Your task to perform on an android device: Go to display settings Image 0: 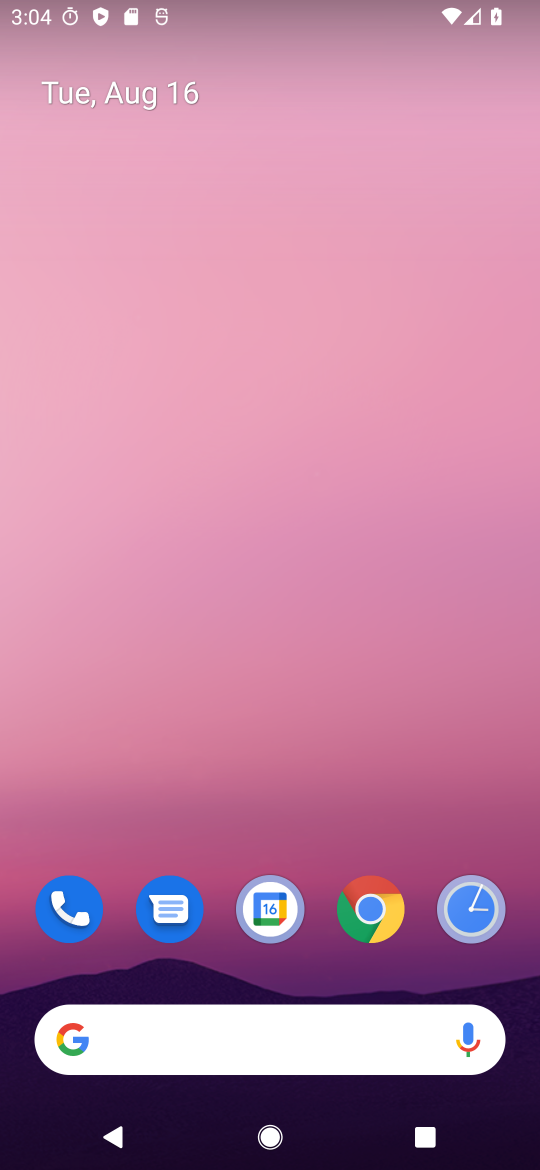
Step 0: drag from (245, 913) to (373, 110)
Your task to perform on an android device: Go to display settings Image 1: 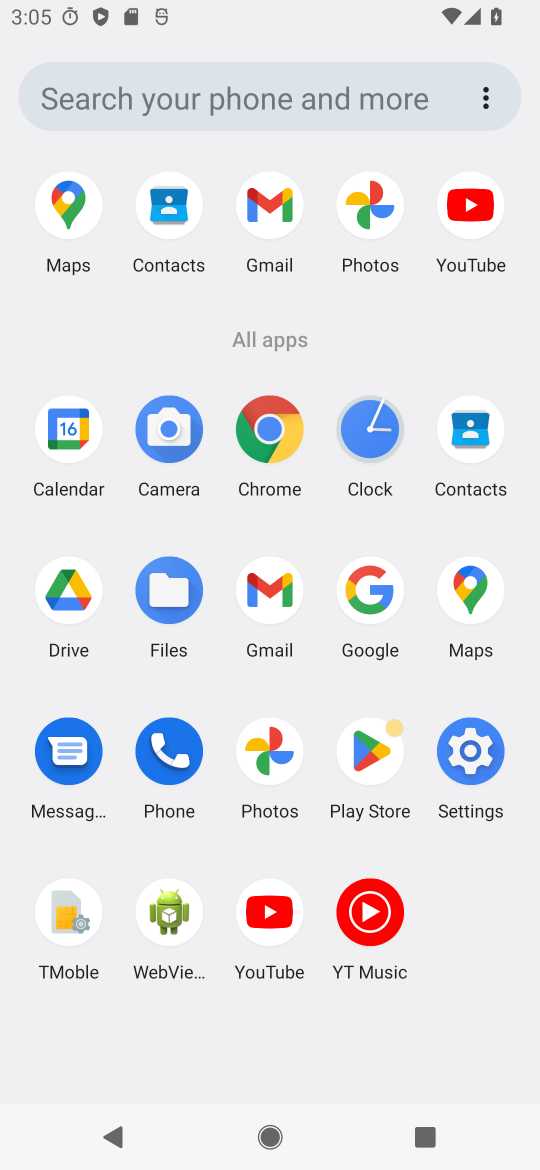
Step 1: click (470, 754)
Your task to perform on an android device: Go to display settings Image 2: 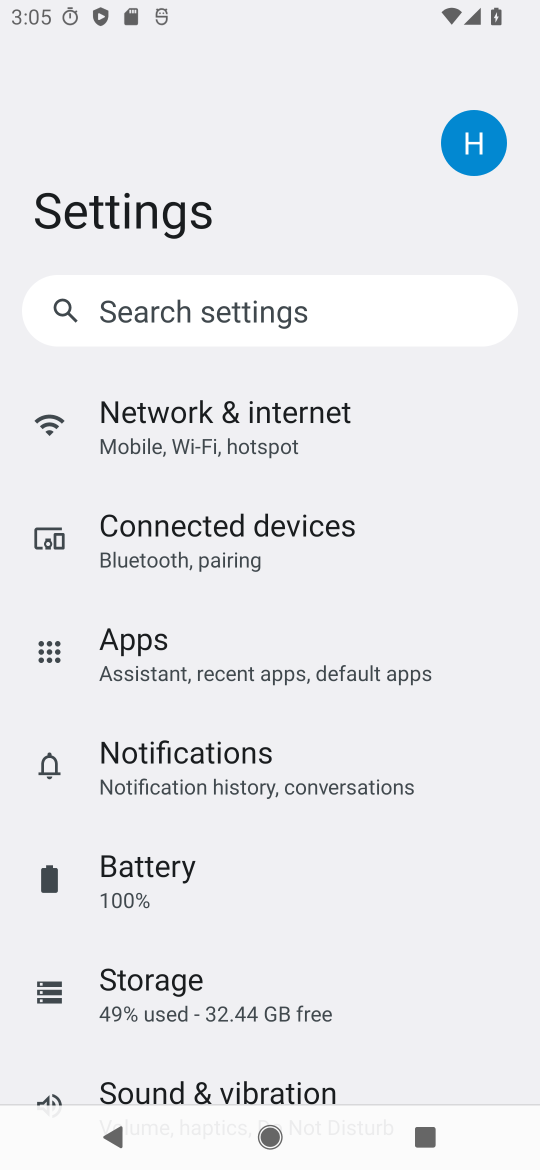
Step 2: drag from (219, 930) to (262, 515)
Your task to perform on an android device: Go to display settings Image 3: 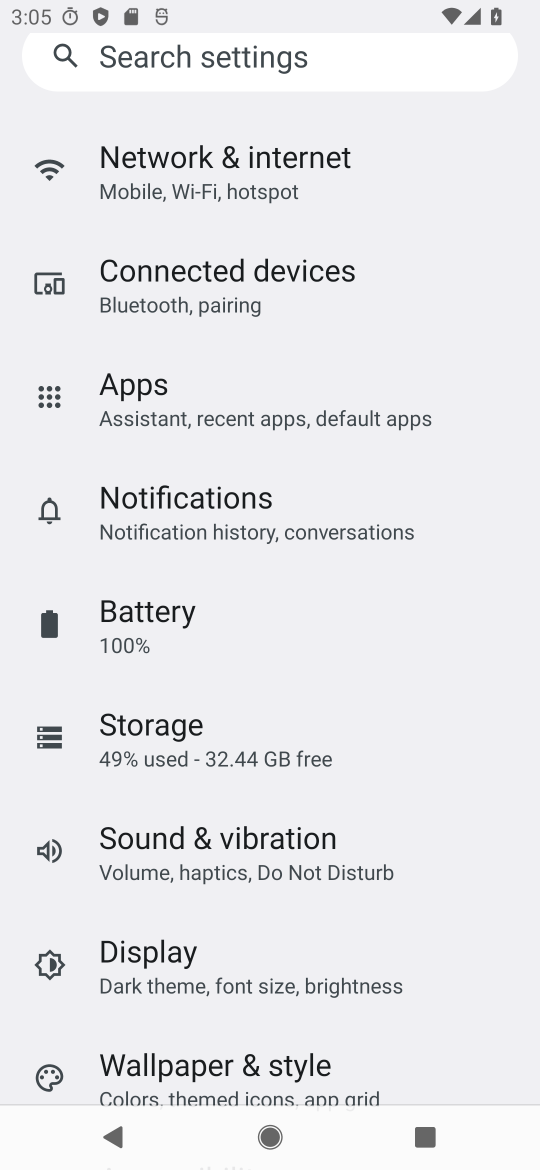
Step 3: drag from (210, 1000) to (237, 143)
Your task to perform on an android device: Go to display settings Image 4: 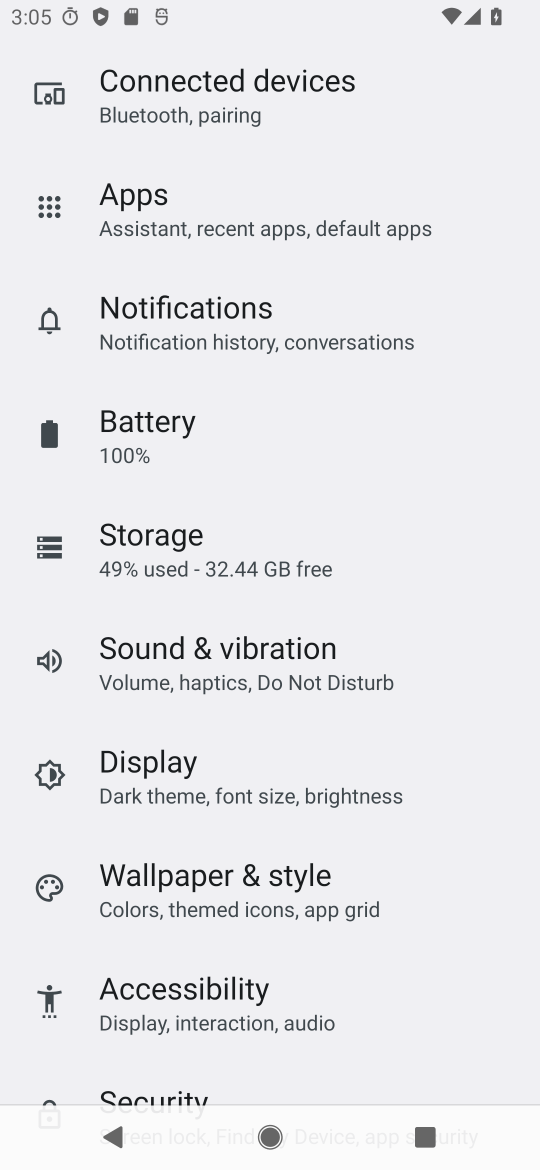
Step 4: drag from (249, 937) to (249, 557)
Your task to perform on an android device: Go to display settings Image 5: 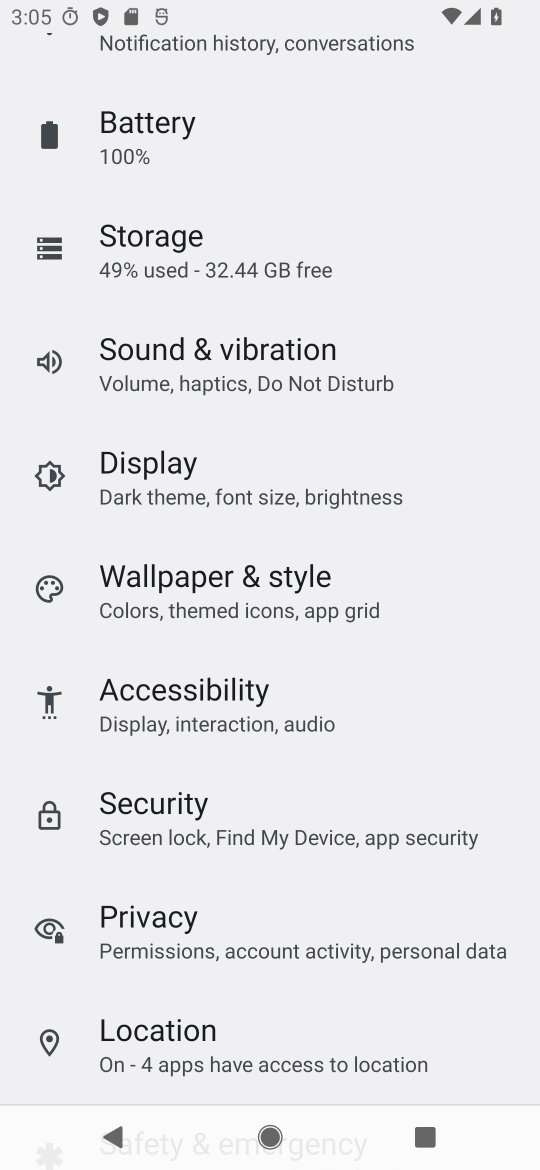
Step 5: click (112, 473)
Your task to perform on an android device: Go to display settings Image 6: 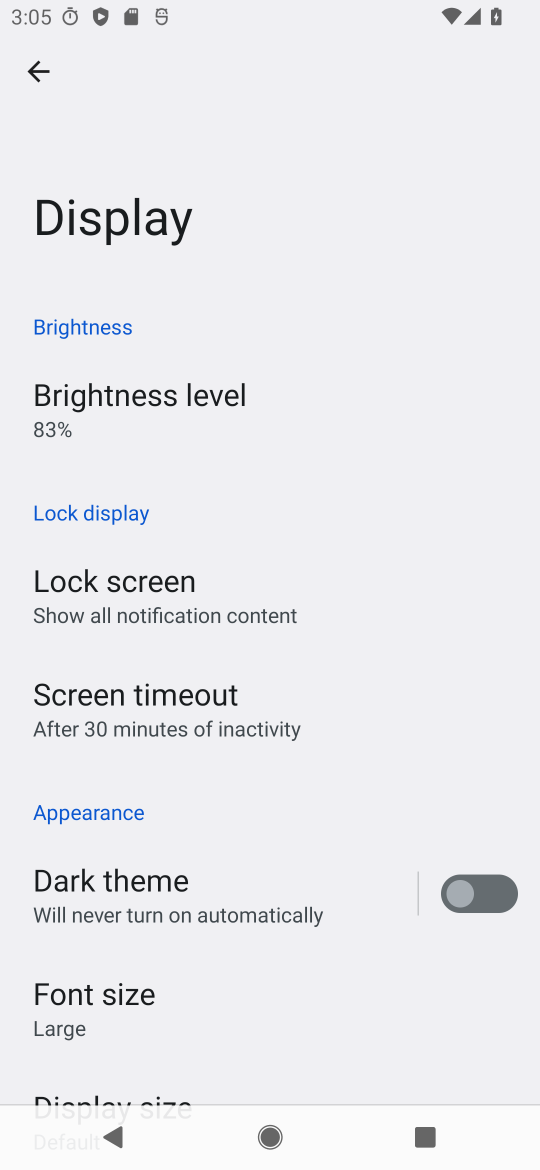
Step 6: task complete